Your task to perform on an android device: Open Youtube and go to "Your channel" Image 0: 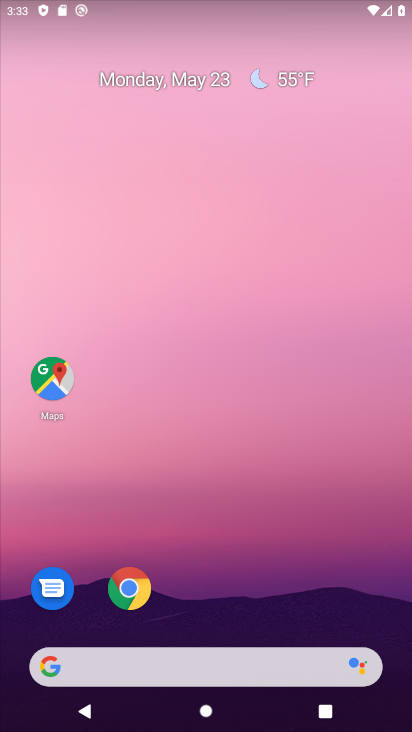
Step 0: drag from (223, 588) to (274, 130)
Your task to perform on an android device: Open Youtube and go to "Your channel" Image 1: 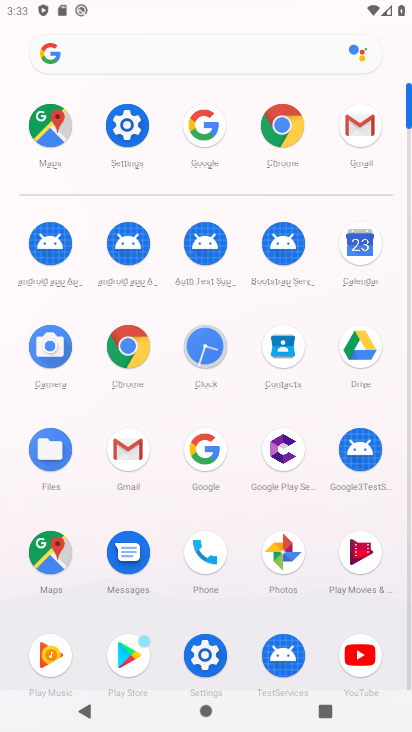
Step 1: click (358, 660)
Your task to perform on an android device: Open Youtube and go to "Your channel" Image 2: 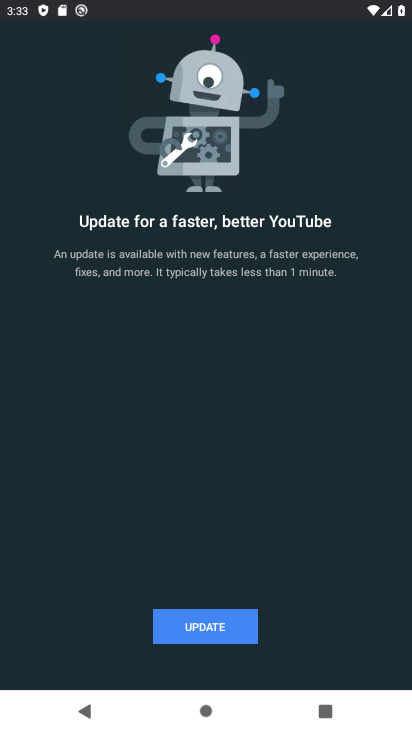
Step 2: click (212, 631)
Your task to perform on an android device: Open Youtube and go to "Your channel" Image 3: 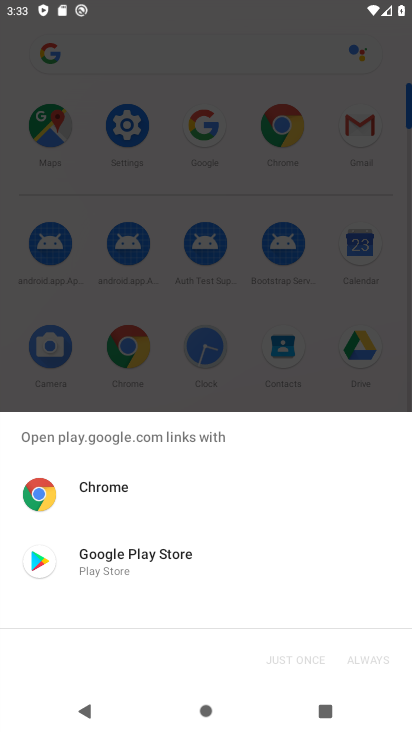
Step 3: click (130, 571)
Your task to perform on an android device: Open Youtube and go to "Your channel" Image 4: 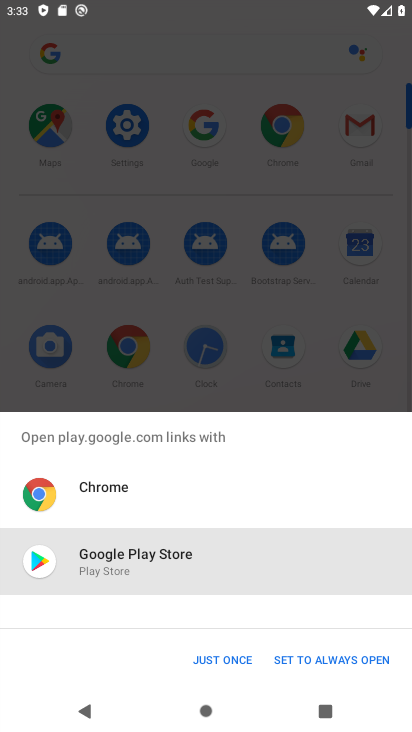
Step 4: click (196, 654)
Your task to perform on an android device: Open Youtube and go to "Your channel" Image 5: 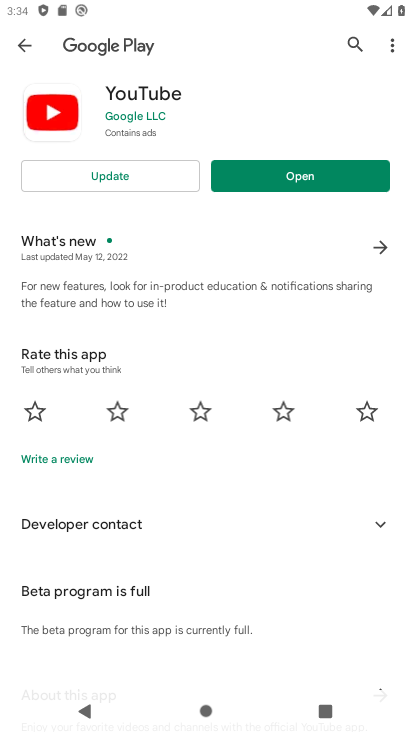
Step 5: click (324, 171)
Your task to perform on an android device: Open Youtube and go to "Your channel" Image 6: 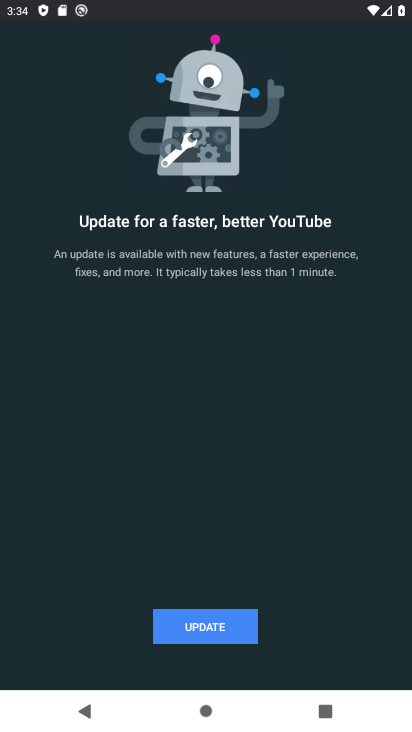
Step 6: click (208, 633)
Your task to perform on an android device: Open Youtube and go to "Your channel" Image 7: 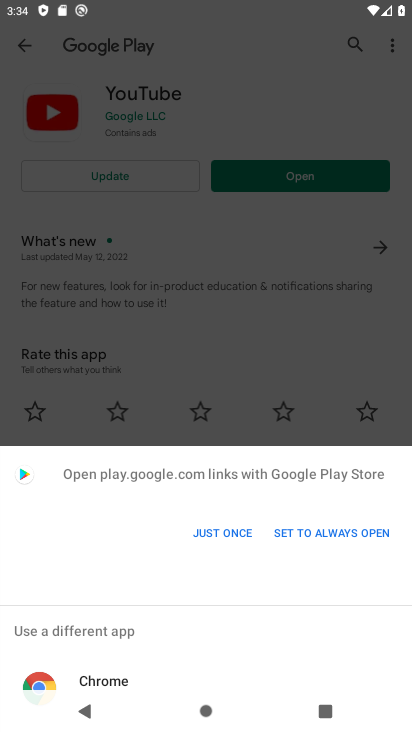
Step 7: click (231, 532)
Your task to perform on an android device: Open Youtube and go to "Your channel" Image 8: 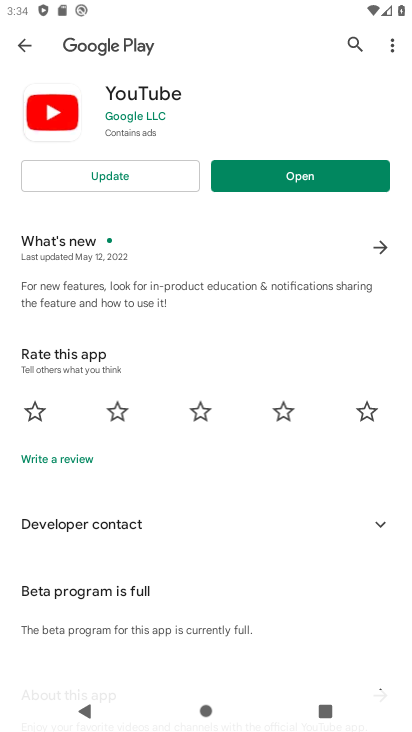
Step 8: click (154, 174)
Your task to perform on an android device: Open Youtube and go to "Your channel" Image 9: 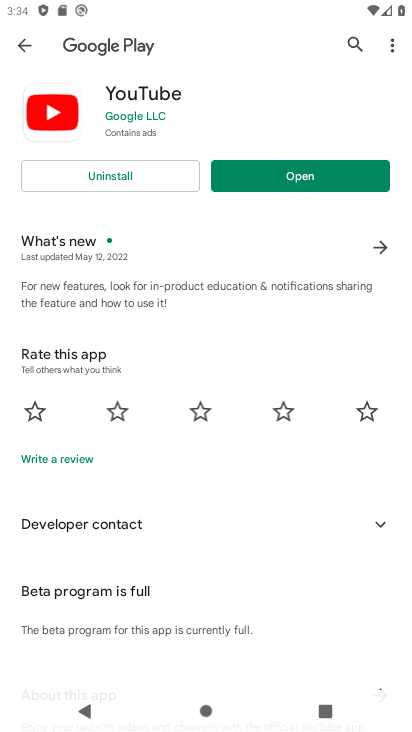
Step 9: click (286, 177)
Your task to perform on an android device: Open Youtube and go to "Your channel" Image 10: 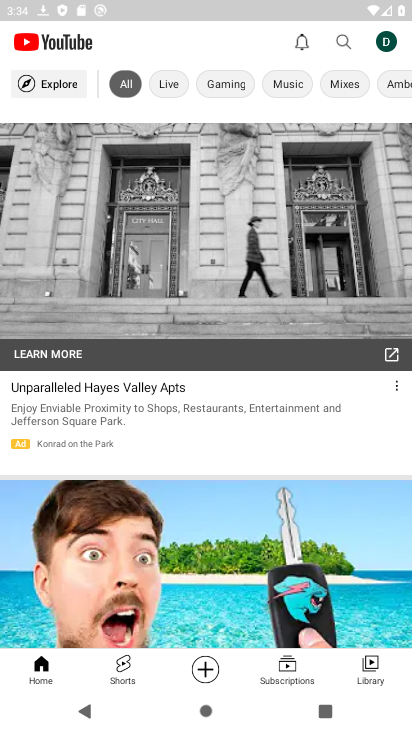
Step 10: click (387, 34)
Your task to perform on an android device: Open Youtube and go to "Your channel" Image 11: 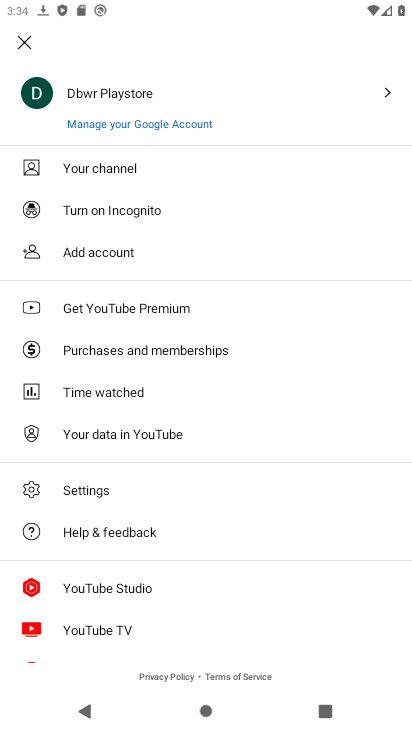
Step 11: click (120, 165)
Your task to perform on an android device: Open Youtube and go to "Your channel" Image 12: 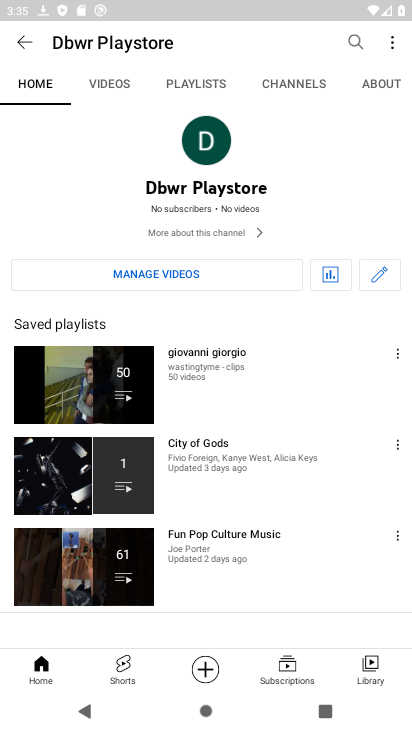
Step 12: task complete